Your task to perform on an android device: change the clock style Image 0: 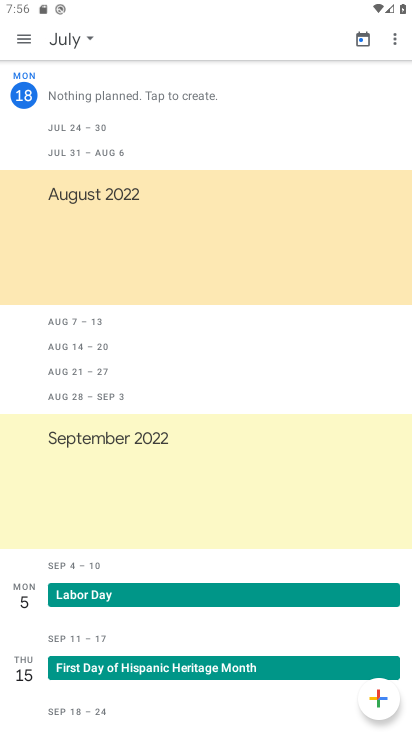
Step 0: press home button
Your task to perform on an android device: change the clock style Image 1: 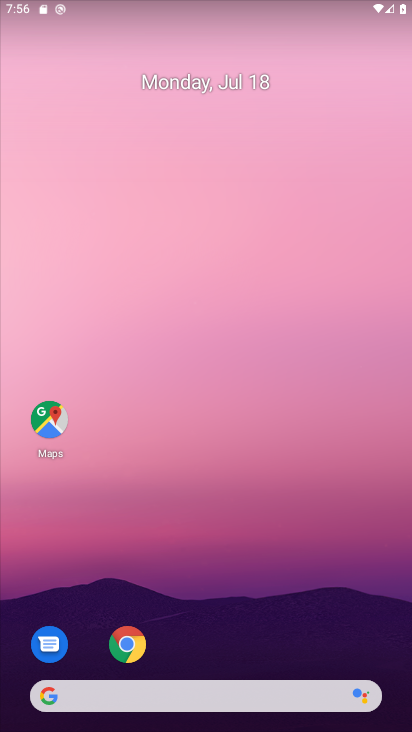
Step 1: drag from (265, 636) to (275, 107)
Your task to perform on an android device: change the clock style Image 2: 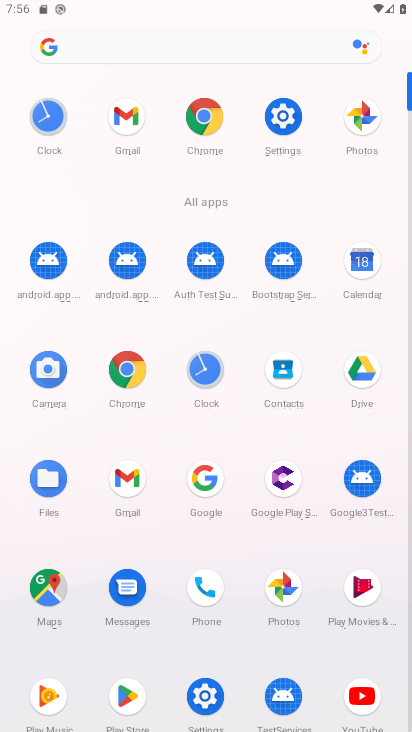
Step 2: click (61, 140)
Your task to perform on an android device: change the clock style Image 3: 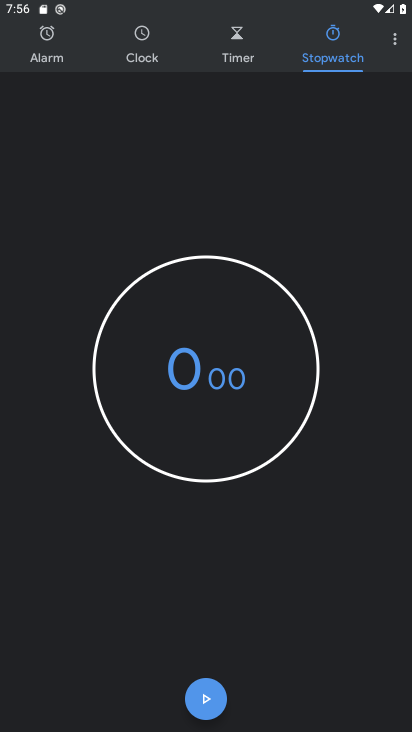
Step 3: task complete